Your task to perform on an android device: toggle javascript in the chrome app Image 0: 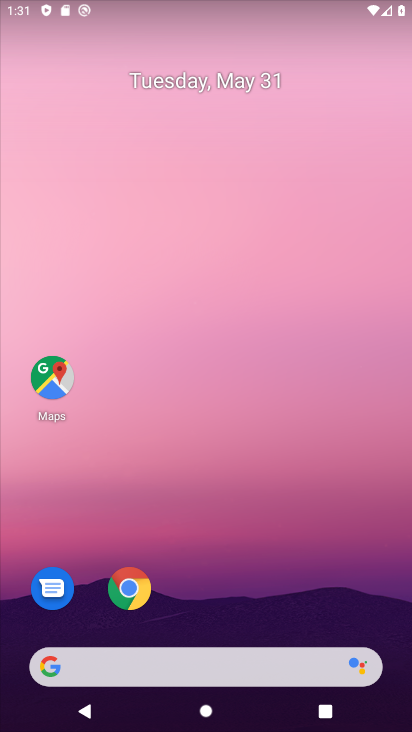
Step 0: click (138, 590)
Your task to perform on an android device: toggle javascript in the chrome app Image 1: 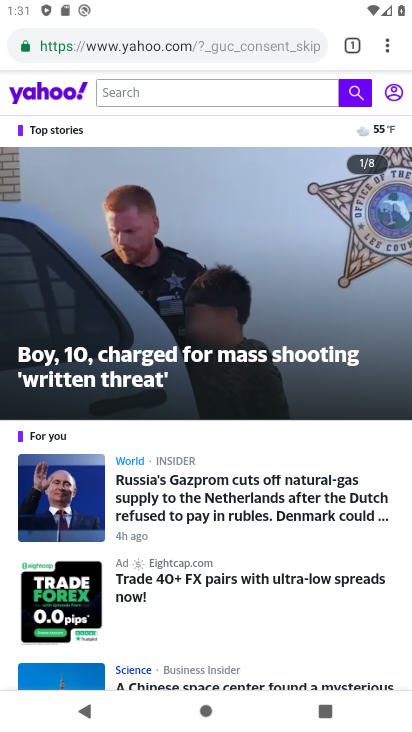
Step 1: click (393, 45)
Your task to perform on an android device: toggle javascript in the chrome app Image 2: 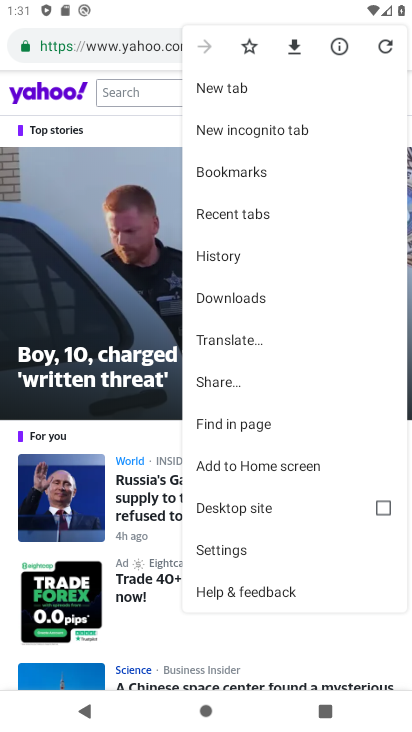
Step 2: click (234, 548)
Your task to perform on an android device: toggle javascript in the chrome app Image 3: 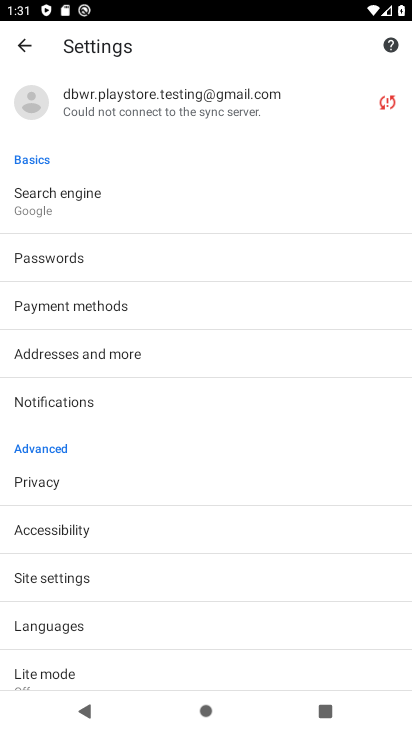
Step 3: click (191, 581)
Your task to perform on an android device: toggle javascript in the chrome app Image 4: 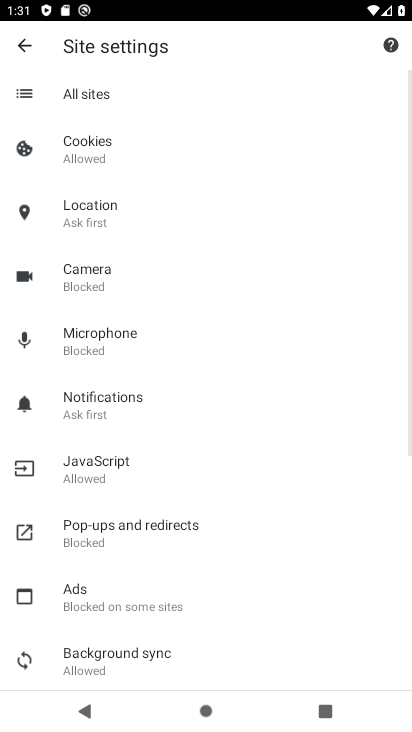
Step 4: click (163, 466)
Your task to perform on an android device: toggle javascript in the chrome app Image 5: 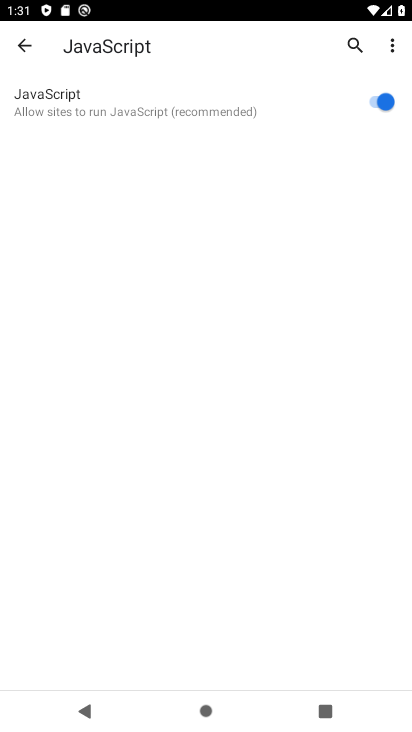
Step 5: click (378, 92)
Your task to perform on an android device: toggle javascript in the chrome app Image 6: 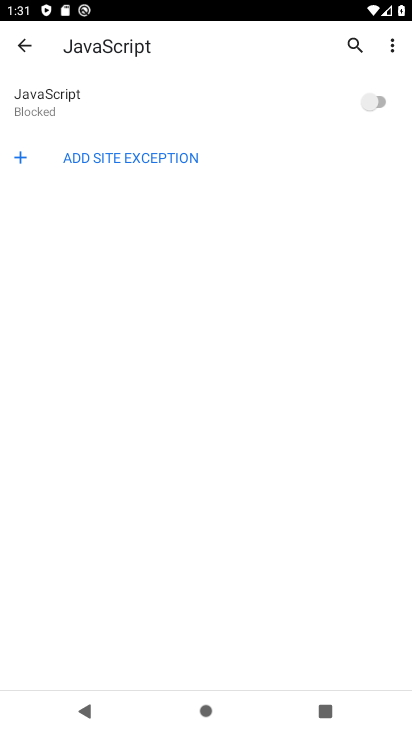
Step 6: task complete